Your task to perform on an android device: Search for seafood restaurants on Google Maps Image 0: 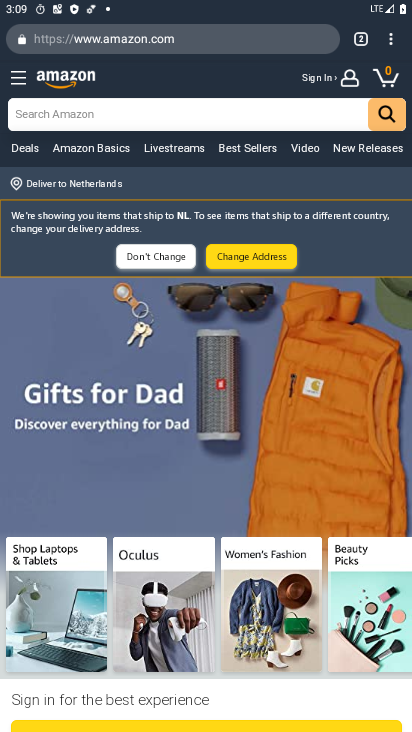
Step 0: press home button
Your task to perform on an android device: Search for seafood restaurants on Google Maps Image 1: 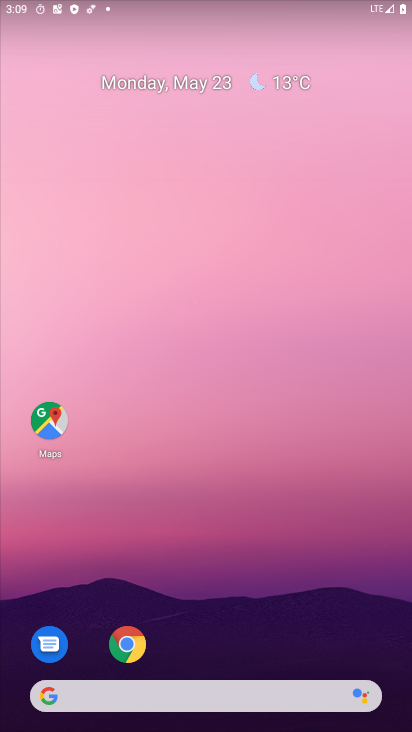
Step 1: drag from (223, 677) to (209, 141)
Your task to perform on an android device: Search for seafood restaurants on Google Maps Image 2: 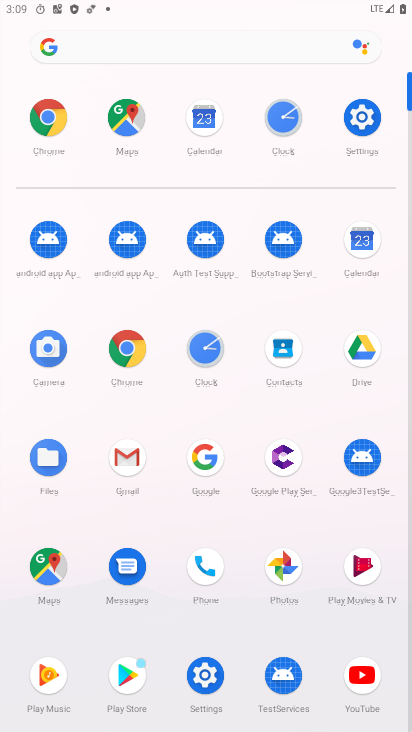
Step 2: click (51, 562)
Your task to perform on an android device: Search for seafood restaurants on Google Maps Image 3: 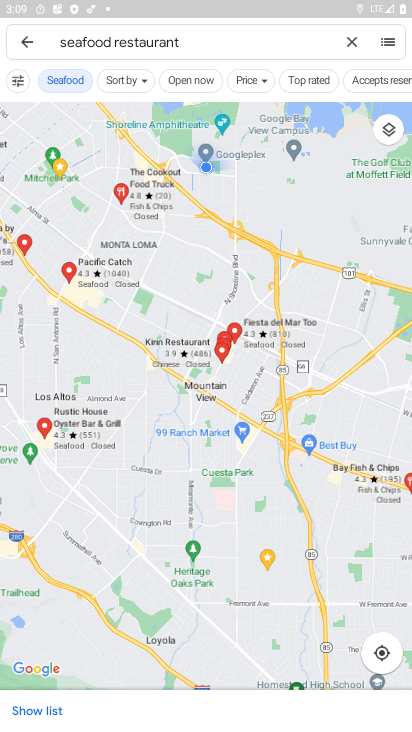
Step 3: task complete